Your task to perform on an android device: What's on my calendar tomorrow? Image 0: 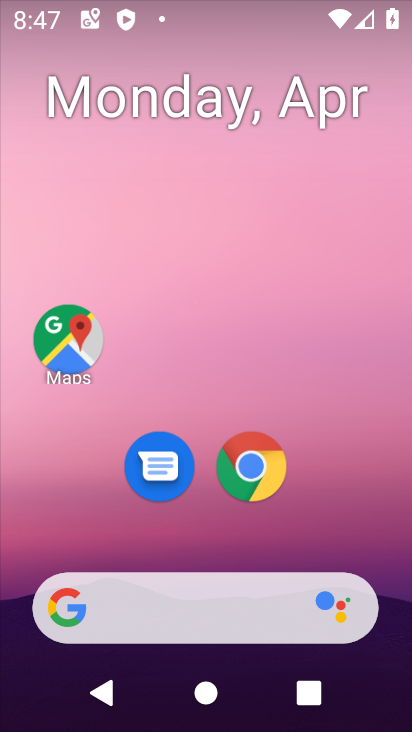
Step 0: drag from (213, 534) to (283, 120)
Your task to perform on an android device: What's on my calendar tomorrow? Image 1: 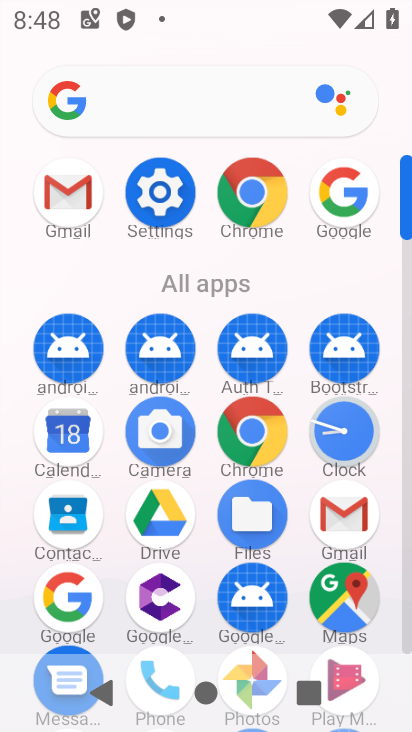
Step 1: click (66, 434)
Your task to perform on an android device: What's on my calendar tomorrow? Image 2: 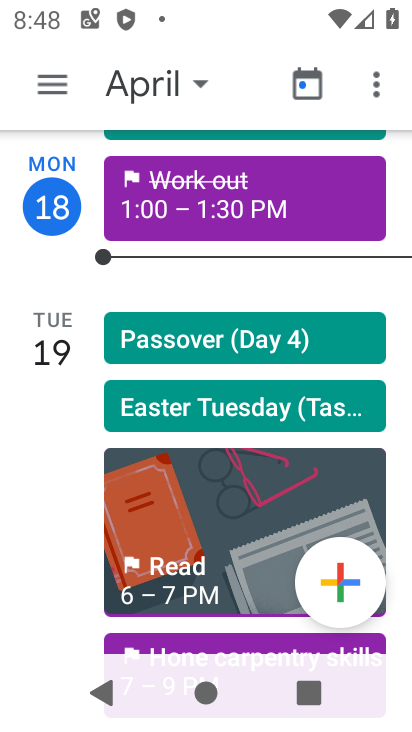
Step 2: task complete